Your task to perform on an android device: Do I have any events today? Image 0: 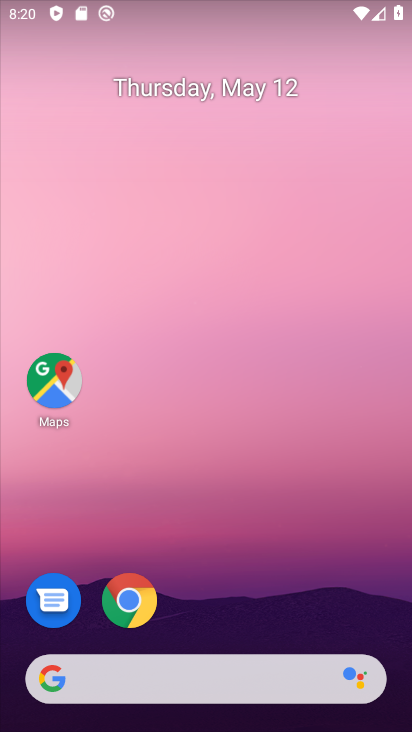
Step 0: drag from (291, 636) to (272, 197)
Your task to perform on an android device: Do I have any events today? Image 1: 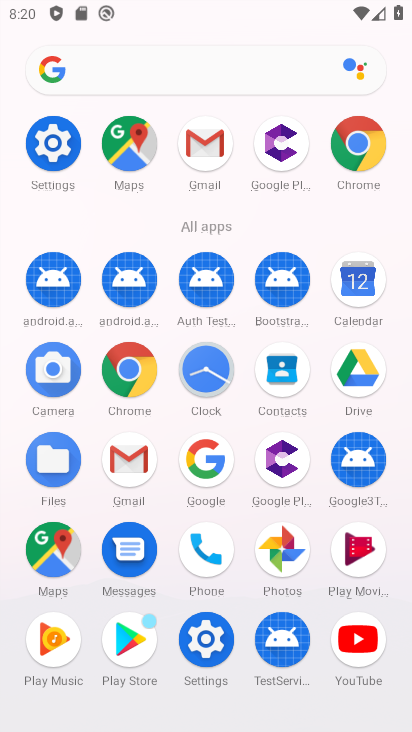
Step 1: click (349, 306)
Your task to perform on an android device: Do I have any events today? Image 2: 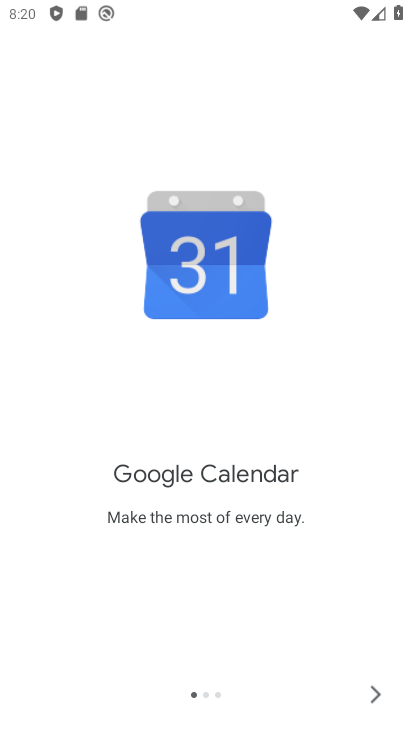
Step 2: click (378, 693)
Your task to perform on an android device: Do I have any events today? Image 3: 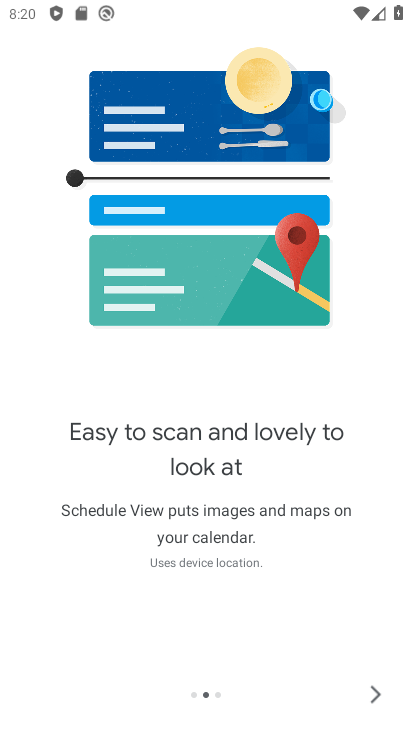
Step 3: click (378, 693)
Your task to perform on an android device: Do I have any events today? Image 4: 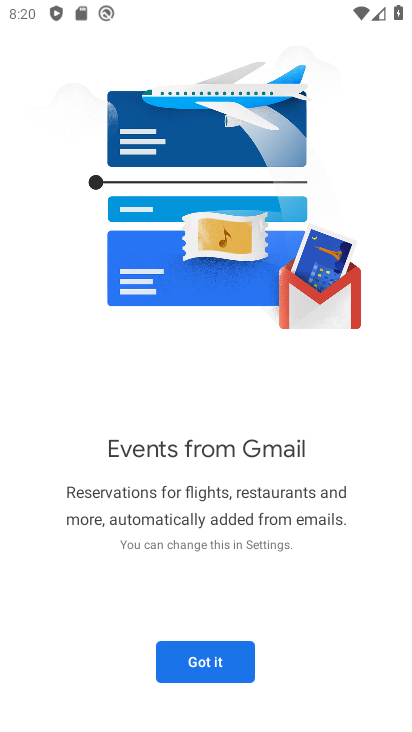
Step 4: click (207, 658)
Your task to perform on an android device: Do I have any events today? Image 5: 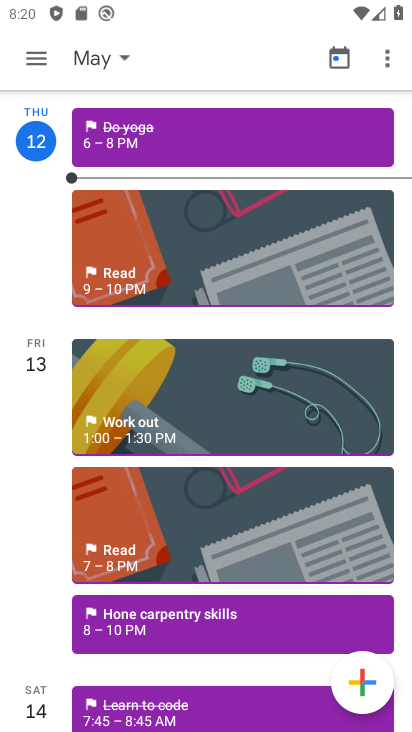
Step 5: task complete